Your task to perform on an android device: toggle notifications settings in the gmail app Image 0: 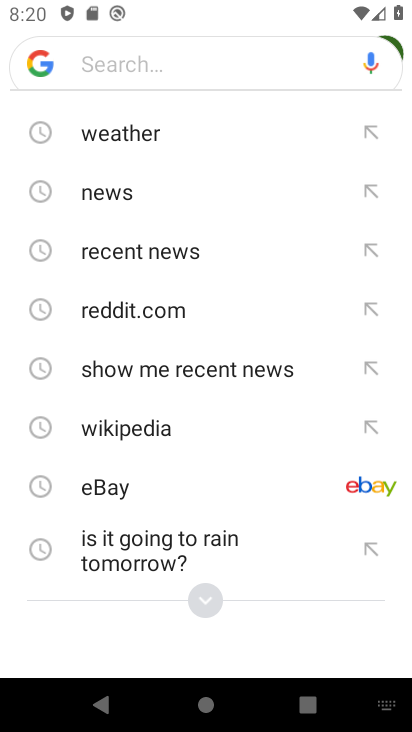
Step 0: press home button
Your task to perform on an android device: toggle notifications settings in the gmail app Image 1: 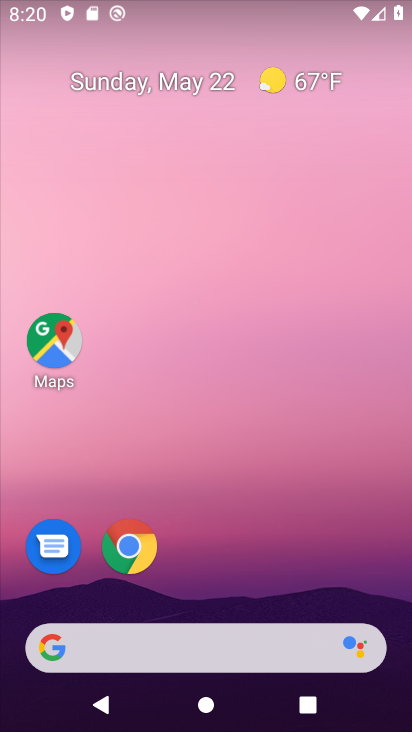
Step 1: drag from (215, 587) to (264, 61)
Your task to perform on an android device: toggle notifications settings in the gmail app Image 2: 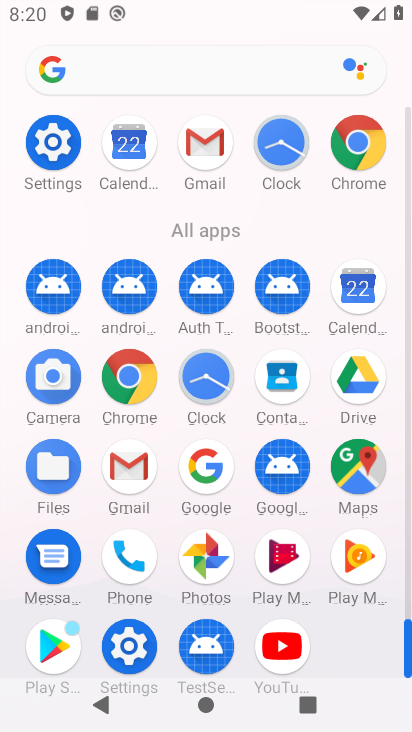
Step 2: click (134, 479)
Your task to perform on an android device: toggle notifications settings in the gmail app Image 3: 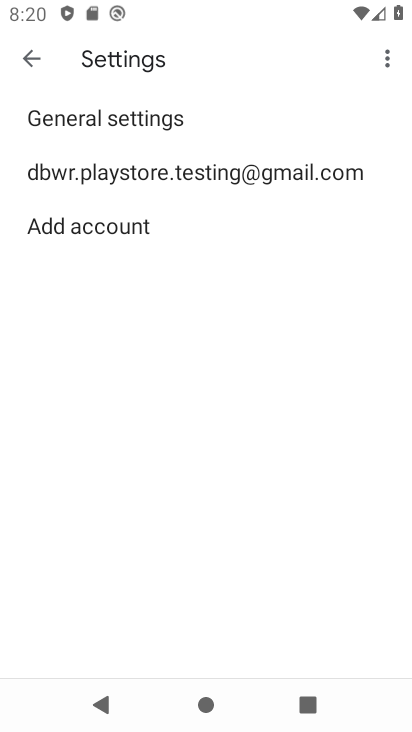
Step 3: click (154, 120)
Your task to perform on an android device: toggle notifications settings in the gmail app Image 4: 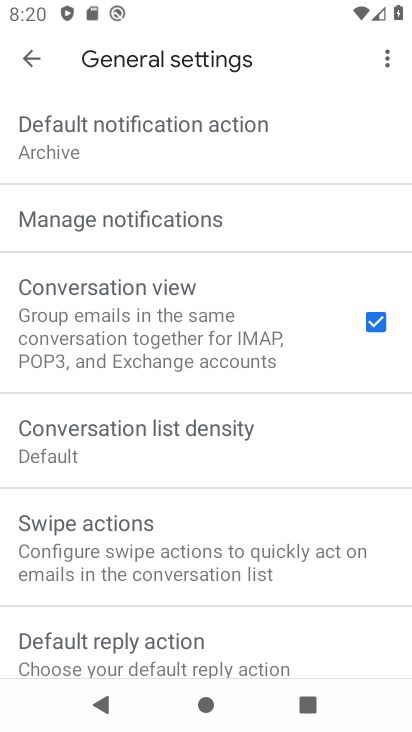
Step 4: click (150, 236)
Your task to perform on an android device: toggle notifications settings in the gmail app Image 5: 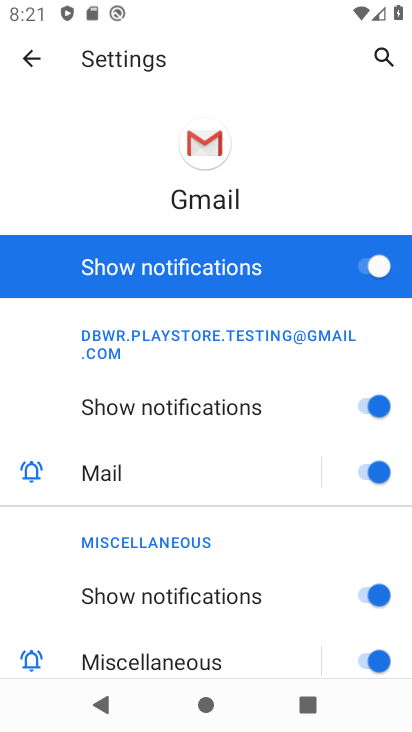
Step 5: click (347, 265)
Your task to perform on an android device: toggle notifications settings in the gmail app Image 6: 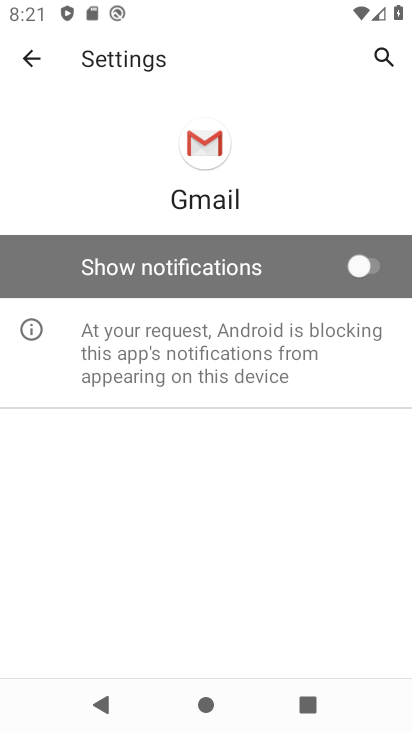
Step 6: task complete